Your task to perform on an android device: change notifications settings Image 0: 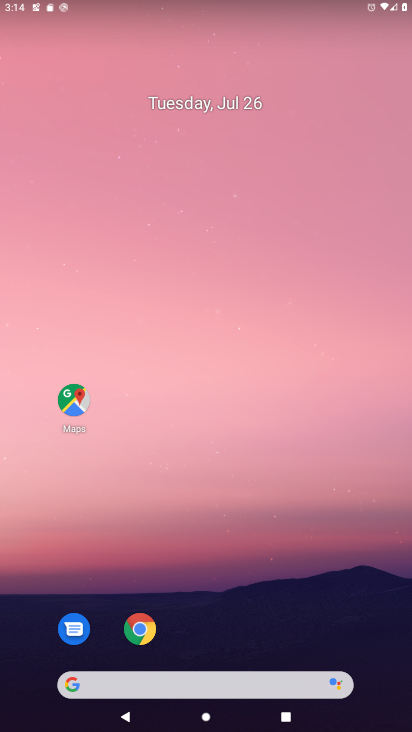
Step 0: drag from (196, 630) to (145, 168)
Your task to perform on an android device: change notifications settings Image 1: 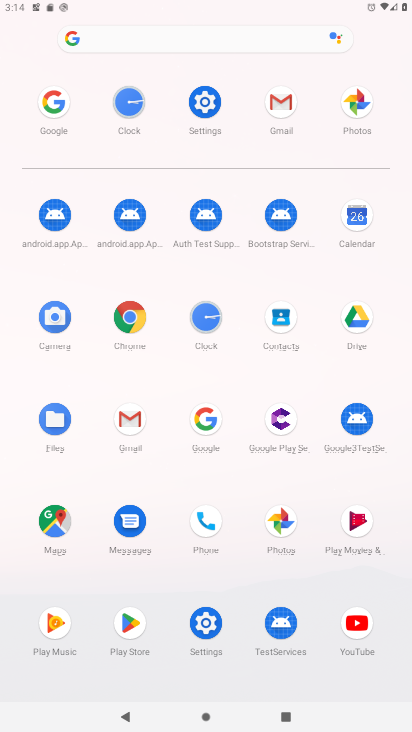
Step 1: click (198, 99)
Your task to perform on an android device: change notifications settings Image 2: 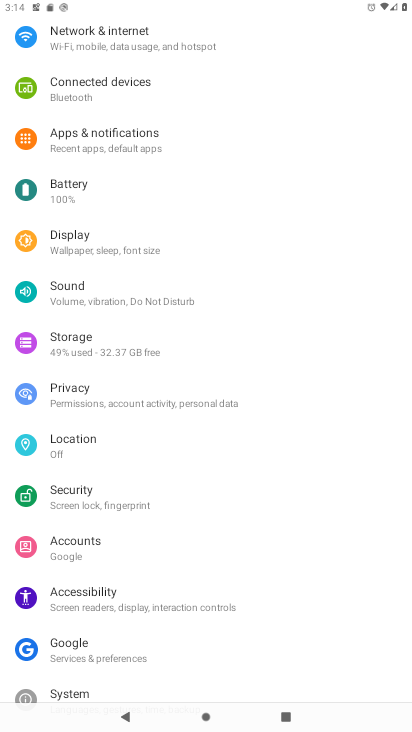
Step 2: click (145, 145)
Your task to perform on an android device: change notifications settings Image 3: 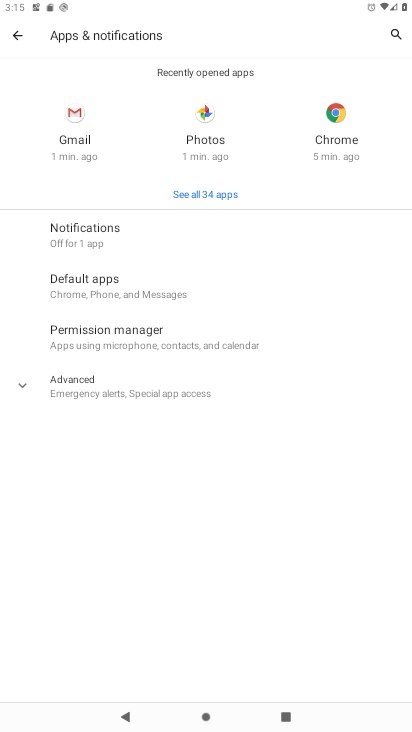
Step 3: click (146, 242)
Your task to perform on an android device: change notifications settings Image 4: 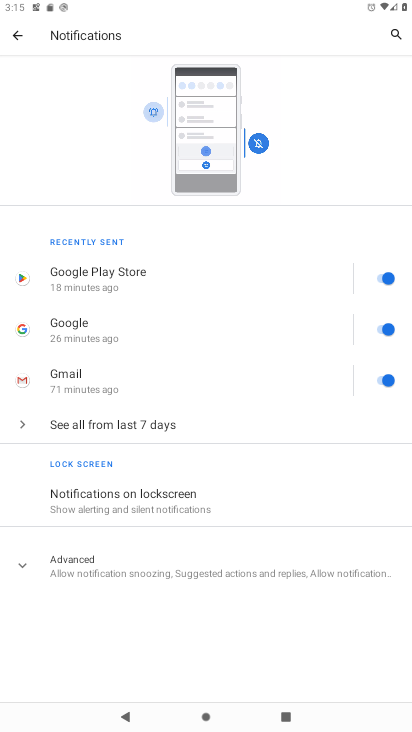
Step 4: click (129, 515)
Your task to perform on an android device: change notifications settings Image 5: 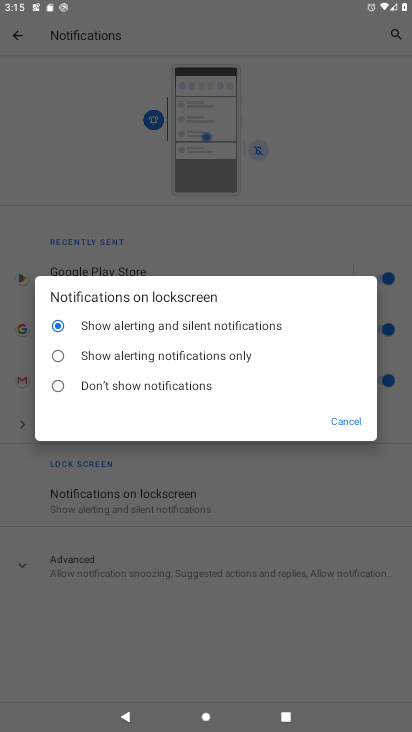
Step 5: click (166, 395)
Your task to perform on an android device: change notifications settings Image 6: 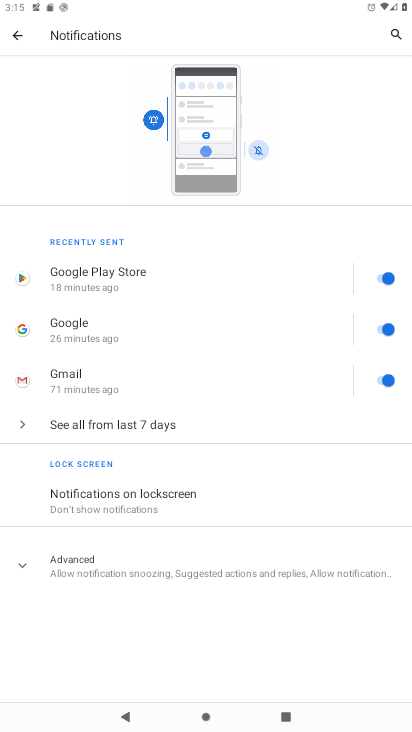
Step 6: task complete